Your task to perform on an android device: Go to internet settings Image 0: 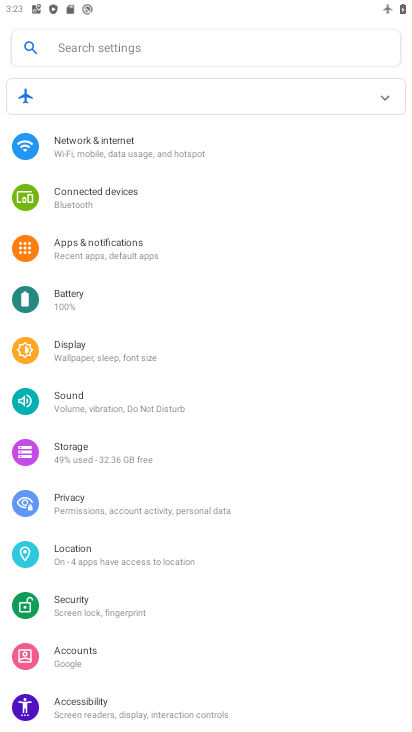
Step 0: press home button
Your task to perform on an android device: Go to internet settings Image 1: 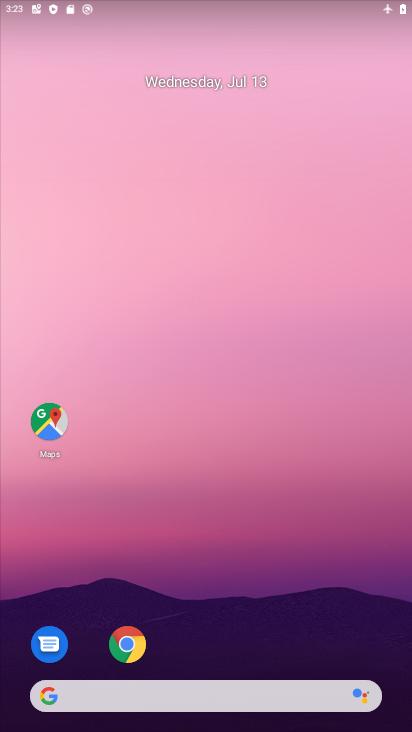
Step 1: drag from (306, 618) to (227, 76)
Your task to perform on an android device: Go to internet settings Image 2: 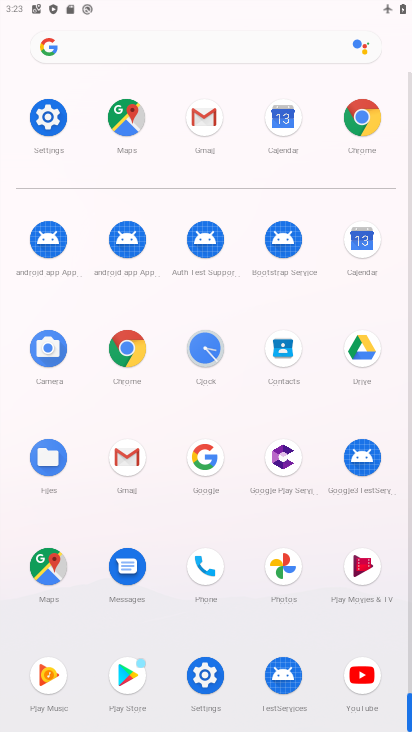
Step 2: click (45, 111)
Your task to perform on an android device: Go to internet settings Image 3: 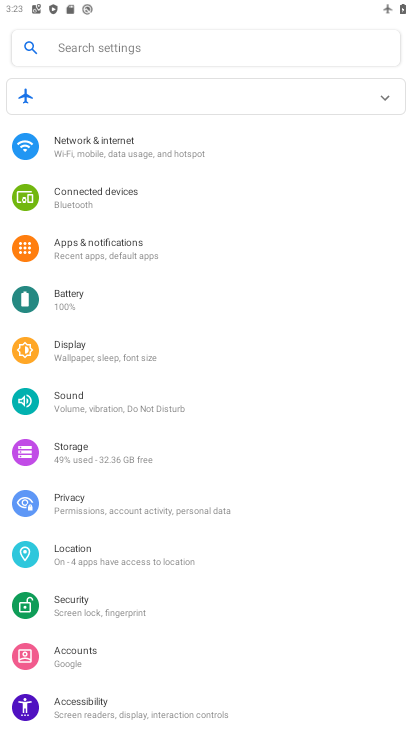
Step 3: click (101, 141)
Your task to perform on an android device: Go to internet settings Image 4: 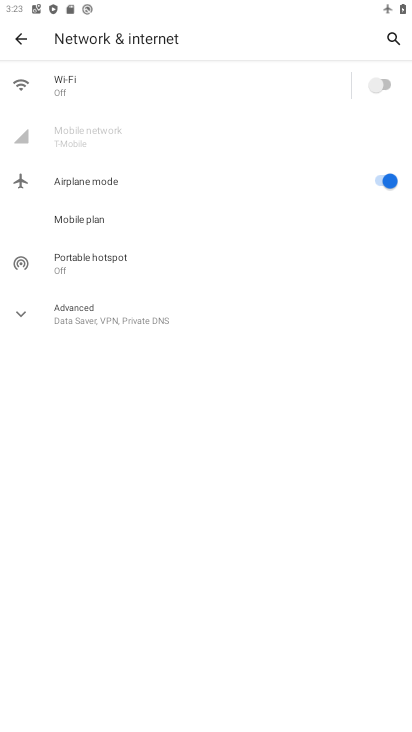
Step 4: task complete